Your task to perform on an android device: check storage Image 0: 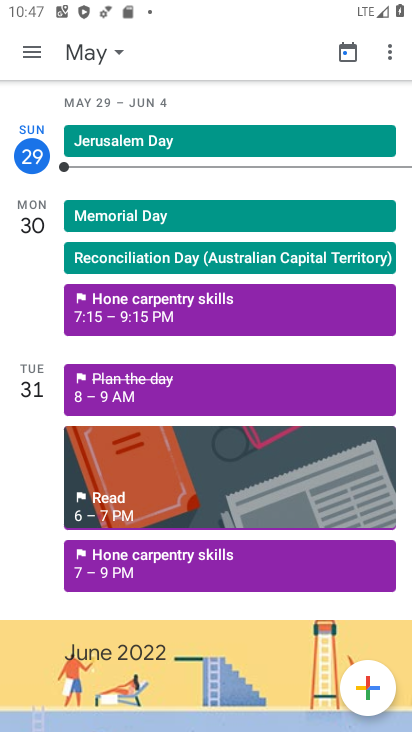
Step 0: press home button
Your task to perform on an android device: check storage Image 1: 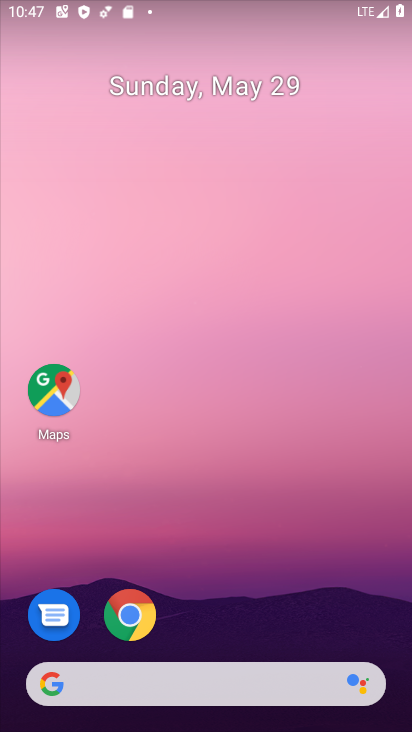
Step 1: drag from (357, 606) to (360, 474)
Your task to perform on an android device: check storage Image 2: 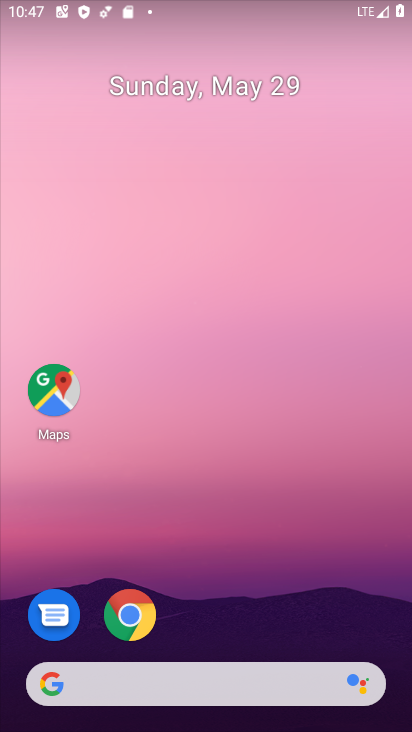
Step 2: drag from (337, 620) to (358, 261)
Your task to perform on an android device: check storage Image 3: 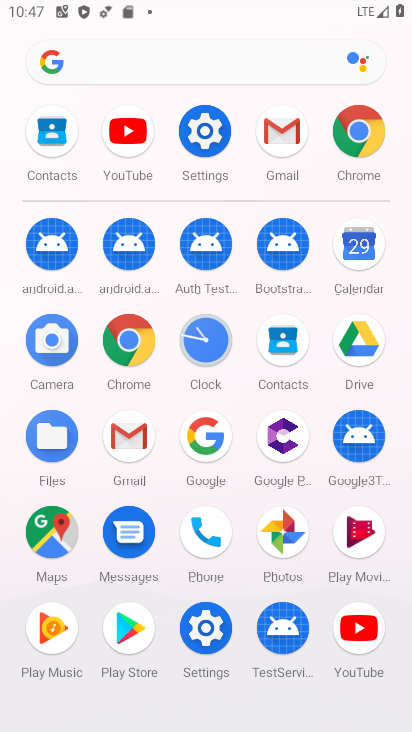
Step 3: click (203, 165)
Your task to perform on an android device: check storage Image 4: 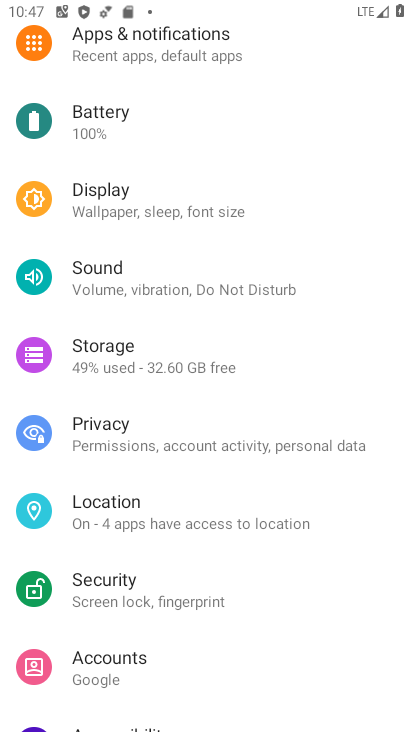
Step 4: drag from (343, 212) to (343, 338)
Your task to perform on an android device: check storage Image 5: 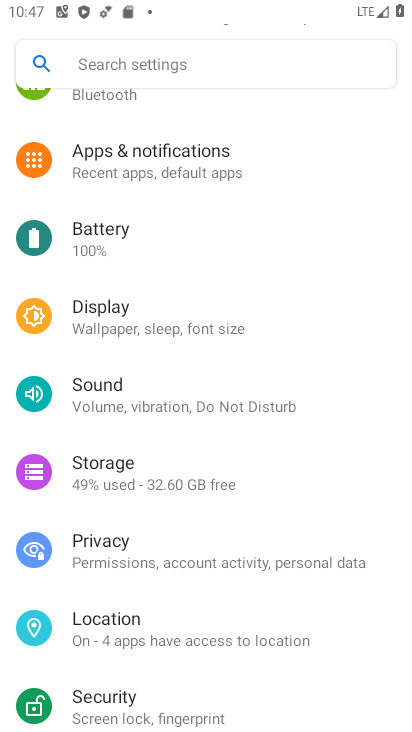
Step 5: drag from (348, 175) to (340, 318)
Your task to perform on an android device: check storage Image 6: 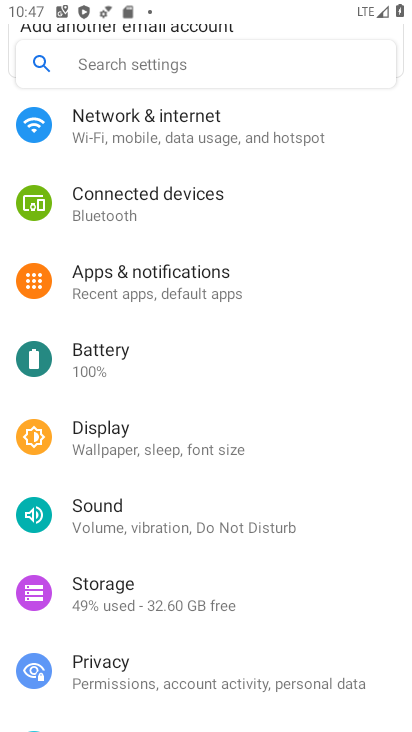
Step 6: drag from (346, 141) to (347, 361)
Your task to perform on an android device: check storage Image 7: 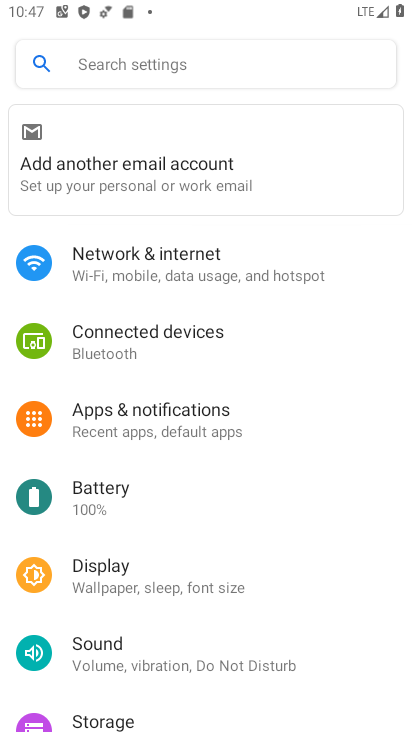
Step 7: drag from (340, 419) to (347, 322)
Your task to perform on an android device: check storage Image 8: 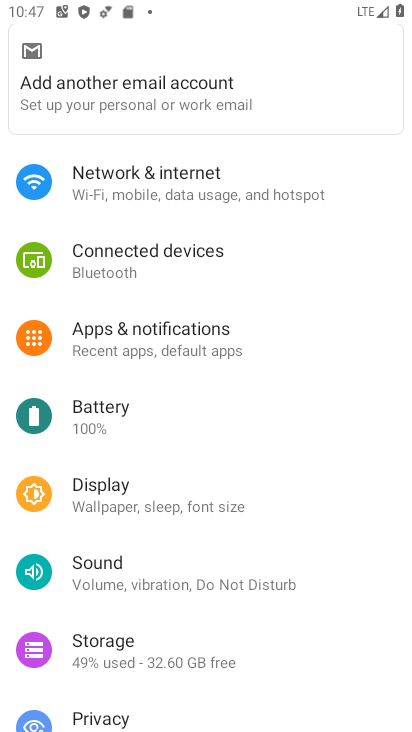
Step 8: drag from (333, 403) to (339, 332)
Your task to perform on an android device: check storage Image 9: 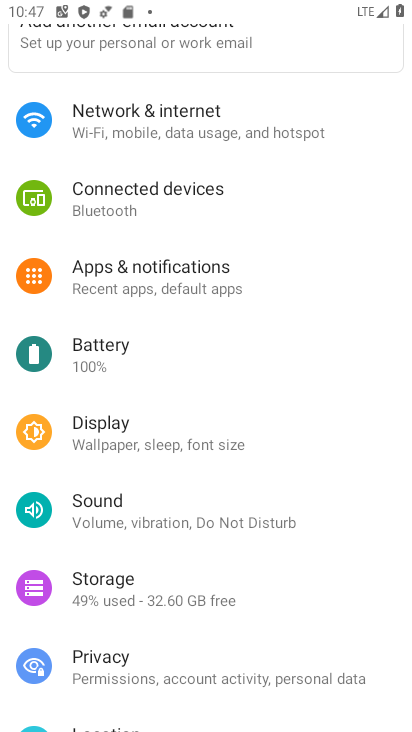
Step 9: drag from (338, 425) to (341, 370)
Your task to perform on an android device: check storage Image 10: 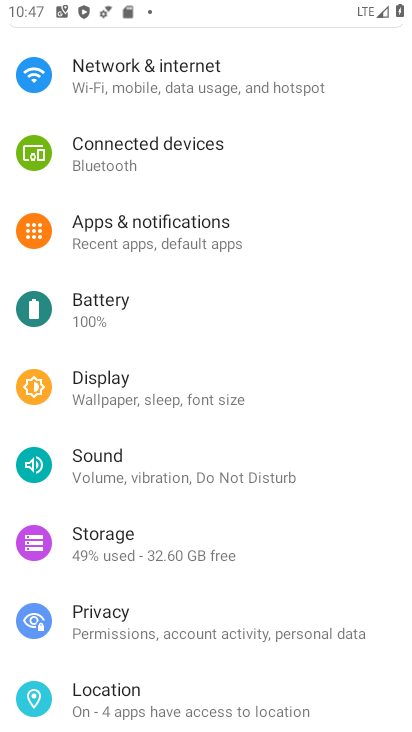
Step 10: drag from (338, 411) to (343, 351)
Your task to perform on an android device: check storage Image 11: 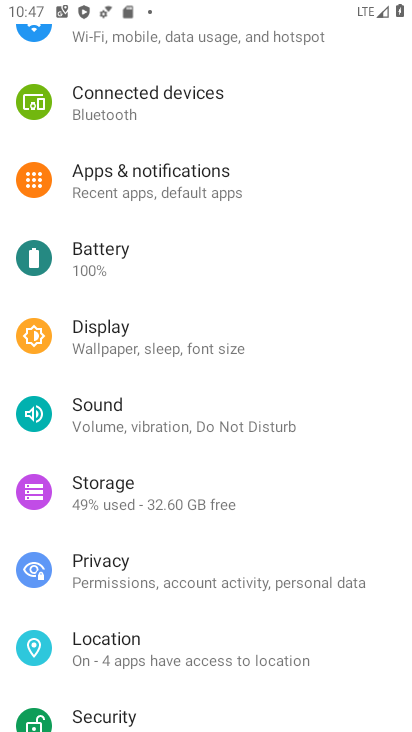
Step 11: click (256, 508)
Your task to perform on an android device: check storage Image 12: 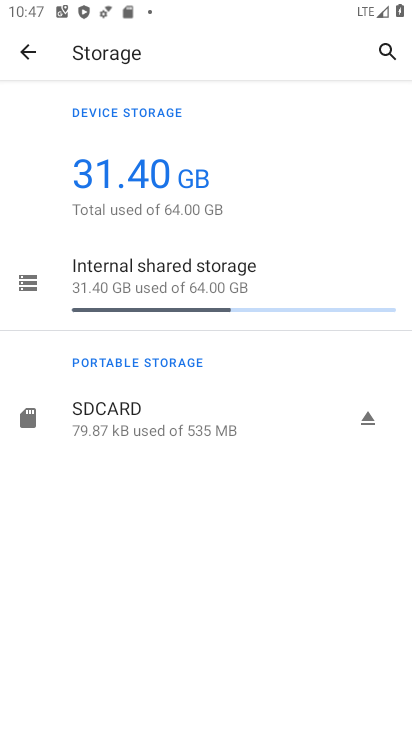
Step 12: task complete